Your task to perform on an android device: Open battery settings Image 0: 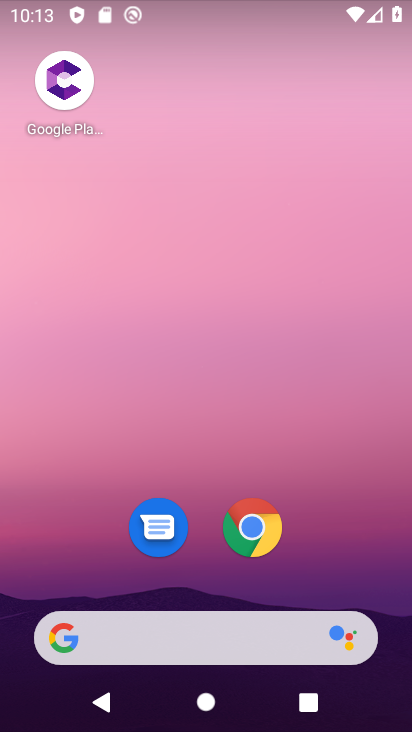
Step 0: drag from (316, 554) to (308, 103)
Your task to perform on an android device: Open battery settings Image 1: 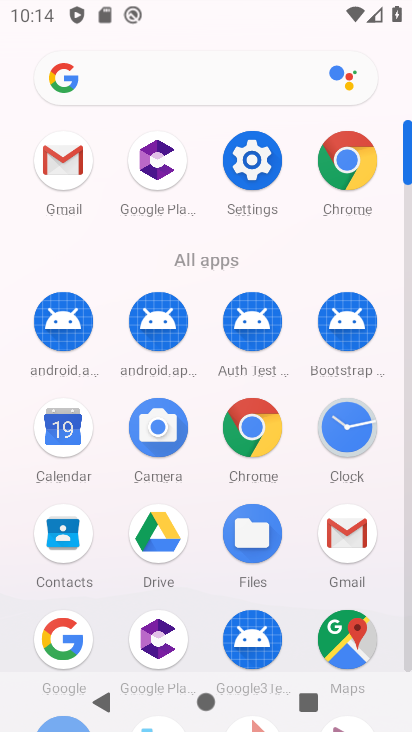
Step 1: click (255, 170)
Your task to perform on an android device: Open battery settings Image 2: 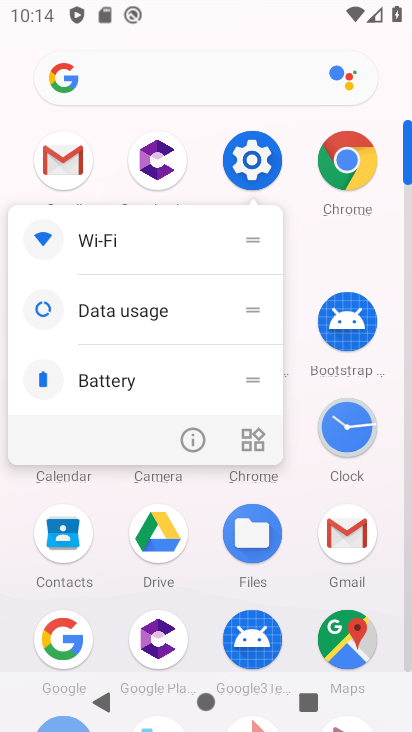
Step 2: click (255, 170)
Your task to perform on an android device: Open battery settings Image 3: 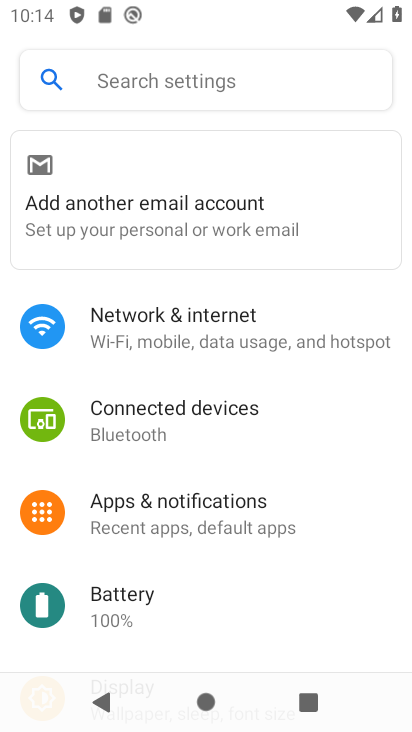
Step 3: click (218, 610)
Your task to perform on an android device: Open battery settings Image 4: 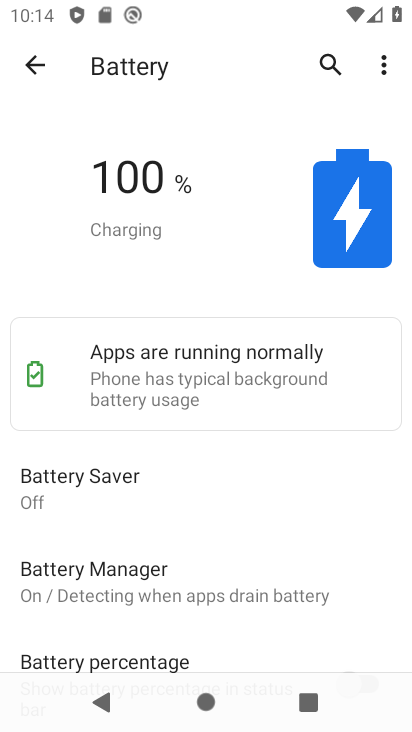
Step 4: task complete